Your task to perform on an android device: find snoozed emails in the gmail app Image 0: 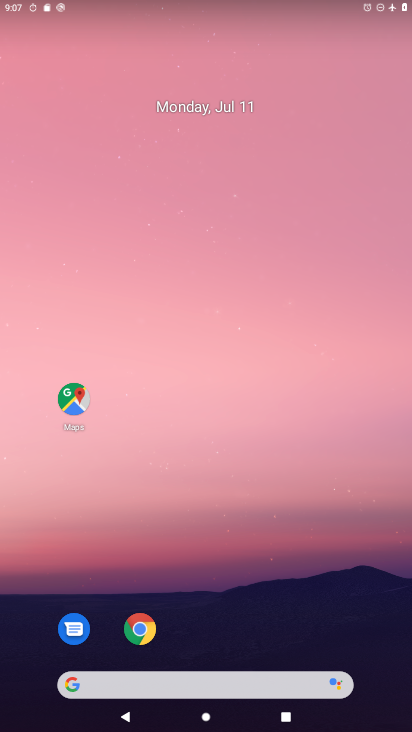
Step 0: drag from (234, 630) to (226, 93)
Your task to perform on an android device: find snoozed emails in the gmail app Image 1: 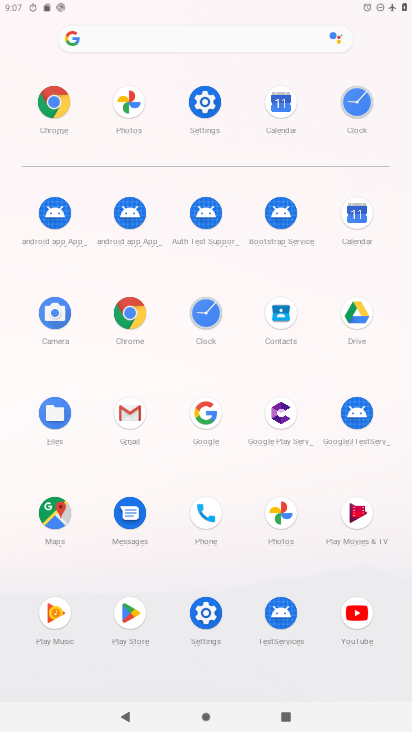
Step 1: click (125, 407)
Your task to perform on an android device: find snoozed emails in the gmail app Image 2: 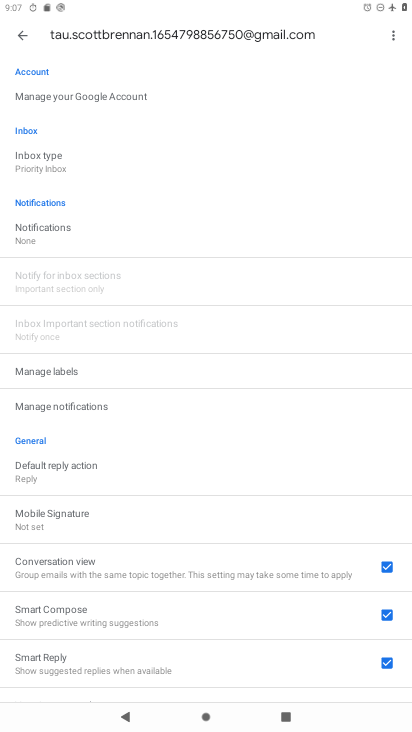
Step 2: press back button
Your task to perform on an android device: find snoozed emails in the gmail app Image 3: 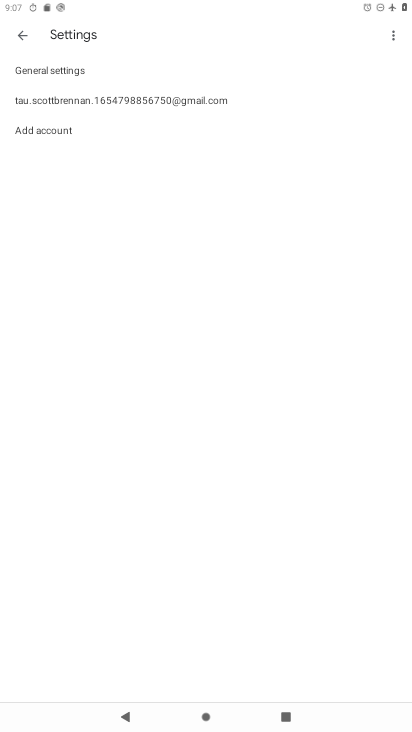
Step 3: press back button
Your task to perform on an android device: find snoozed emails in the gmail app Image 4: 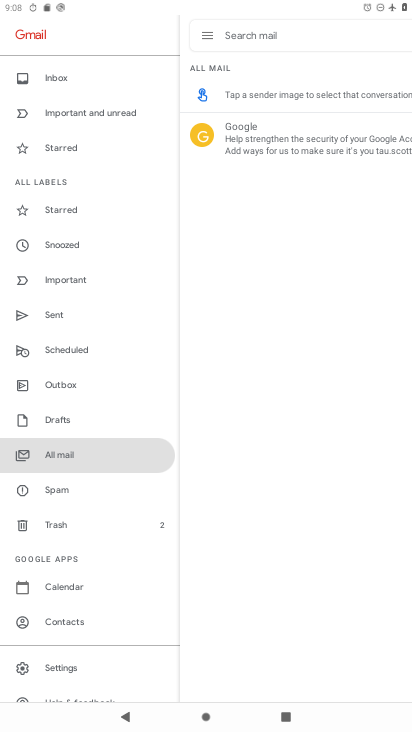
Step 4: click (209, 39)
Your task to perform on an android device: find snoozed emails in the gmail app Image 5: 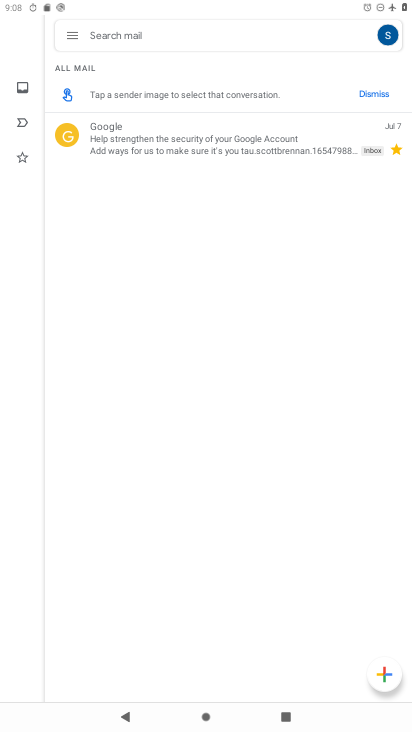
Step 5: click (77, 35)
Your task to perform on an android device: find snoozed emails in the gmail app Image 6: 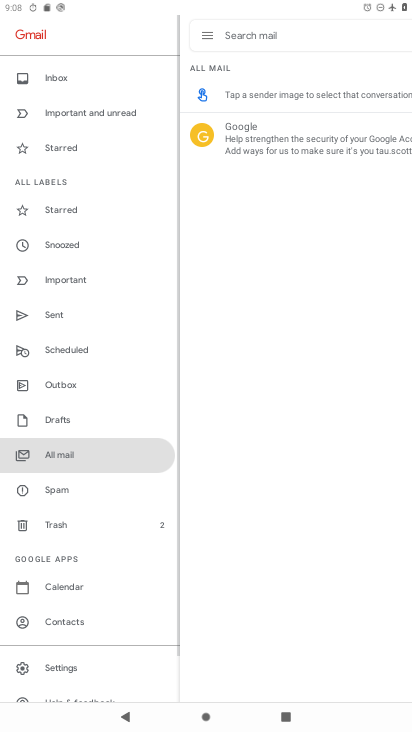
Step 6: click (83, 250)
Your task to perform on an android device: find snoozed emails in the gmail app Image 7: 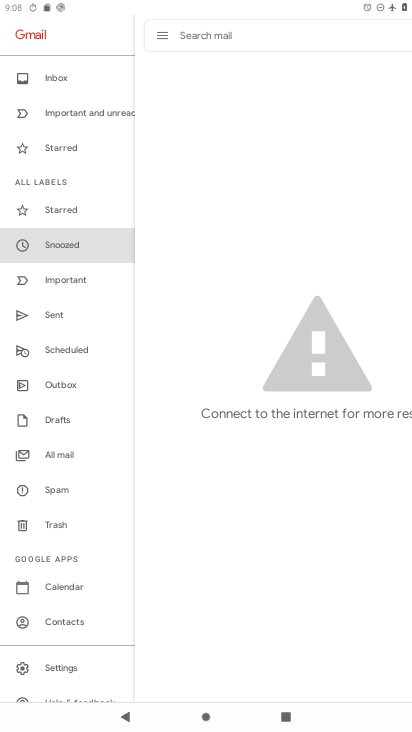
Step 7: task complete